Your task to perform on an android device: Open Google Image 0: 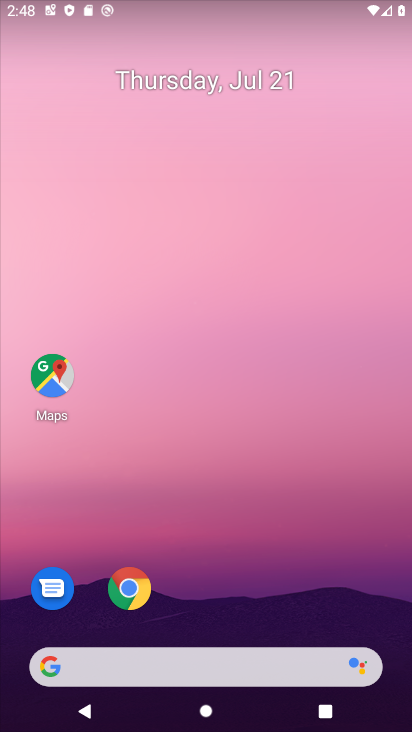
Step 0: click (178, 670)
Your task to perform on an android device: Open Google Image 1: 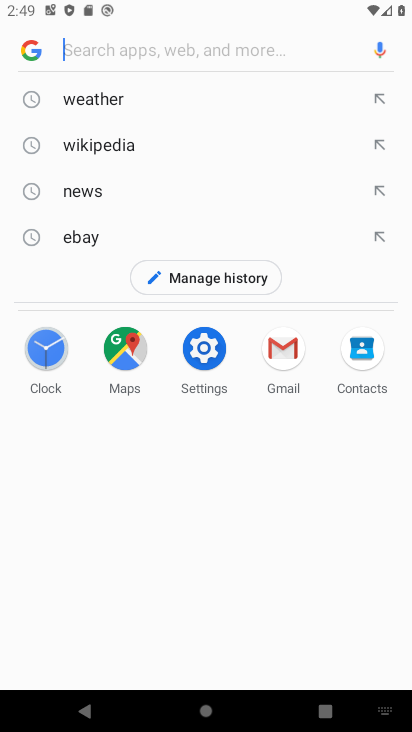
Step 1: click (25, 50)
Your task to perform on an android device: Open Google Image 2: 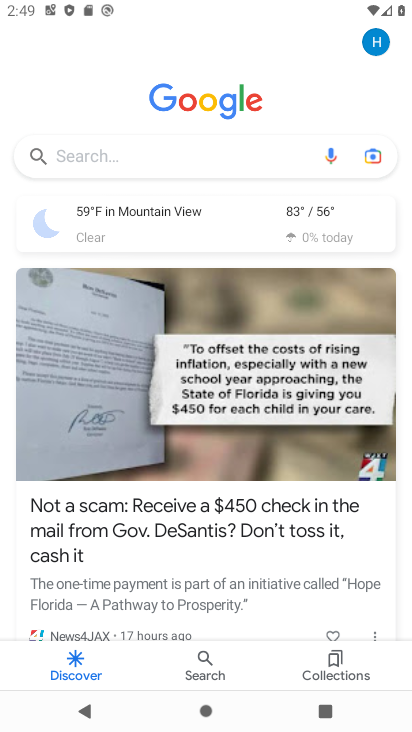
Step 2: task complete